Your task to perform on an android device: set an alarm Image 0: 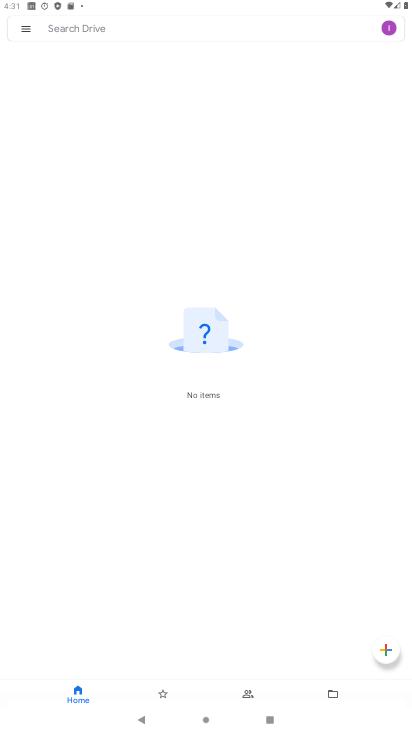
Step 0: press home button
Your task to perform on an android device: set an alarm Image 1: 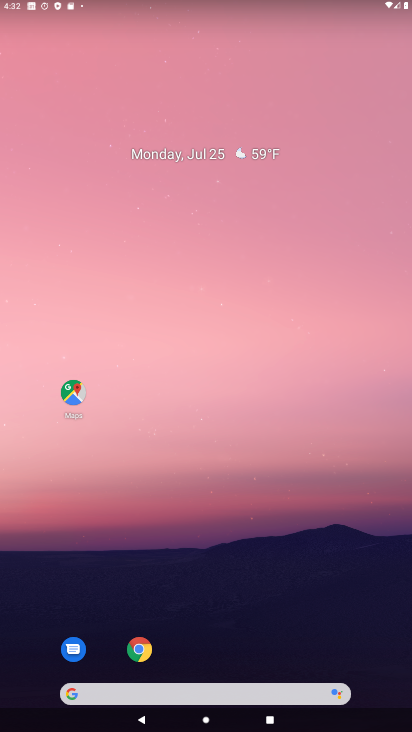
Step 1: drag from (257, 647) to (184, 188)
Your task to perform on an android device: set an alarm Image 2: 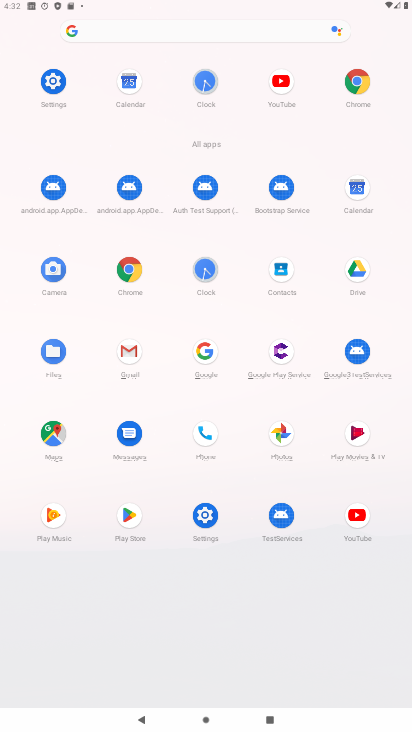
Step 2: click (60, 84)
Your task to perform on an android device: set an alarm Image 3: 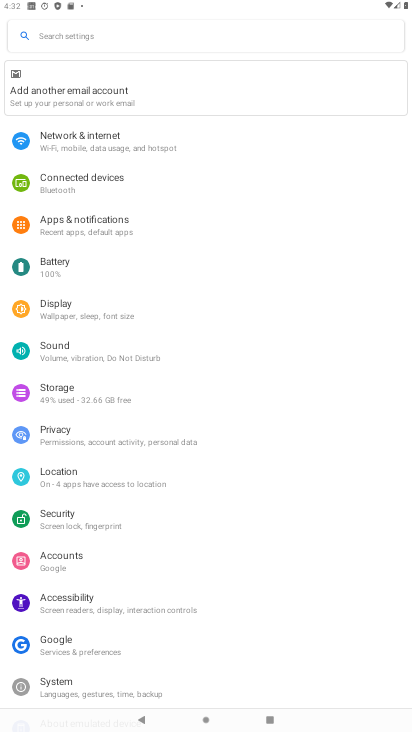
Step 3: press home button
Your task to perform on an android device: set an alarm Image 4: 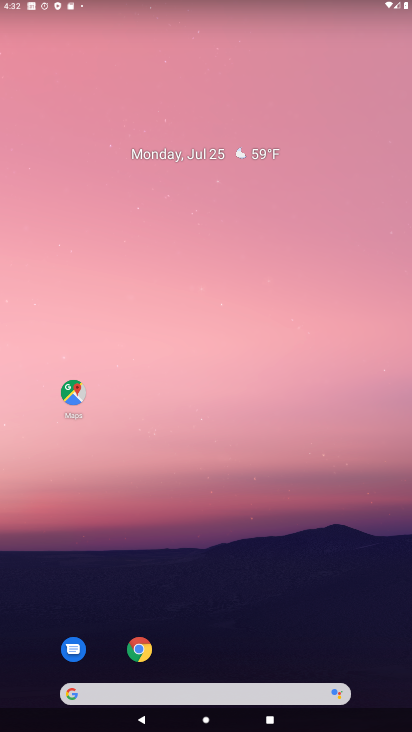
Step 4: drag from (234, 654) to (170, 179)
Your task to perform on an android device: set an alarm Image 5: 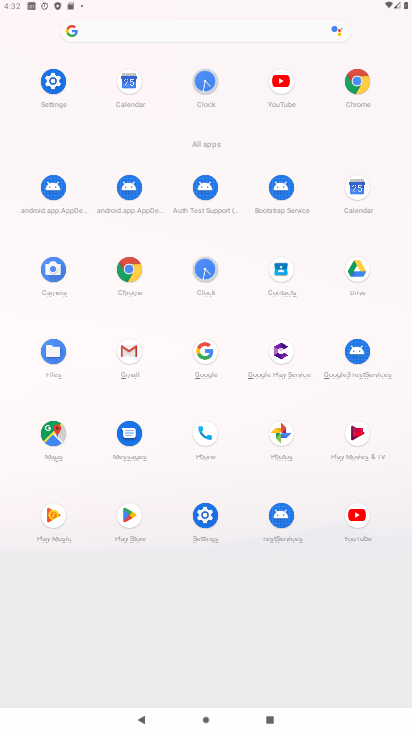
Step 5: click (202, 282)
Your task to perform on an android device: set an alarm Image 6: 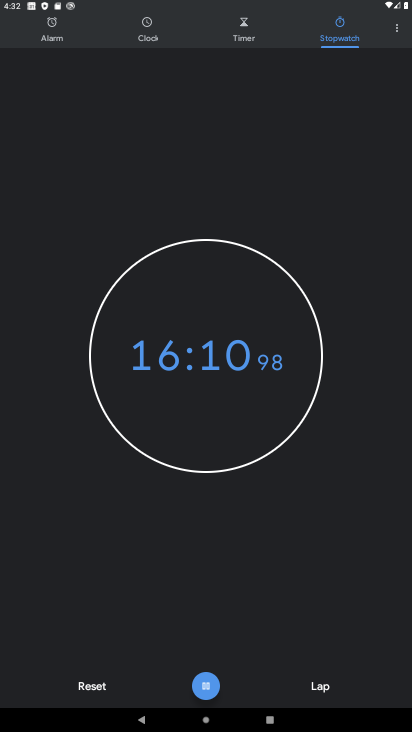
Step 6: click (52, 38)
Your task to perform on an android device: set an alarm Image 7: 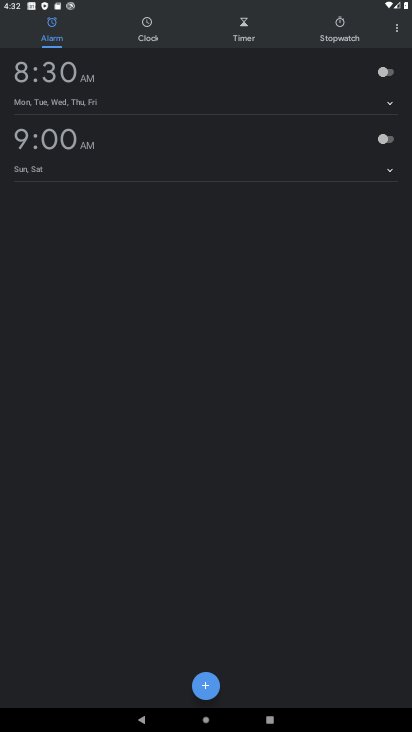
Step 7: click (213, 688)
Your task to perform on an android device: set an alarm Image 8: 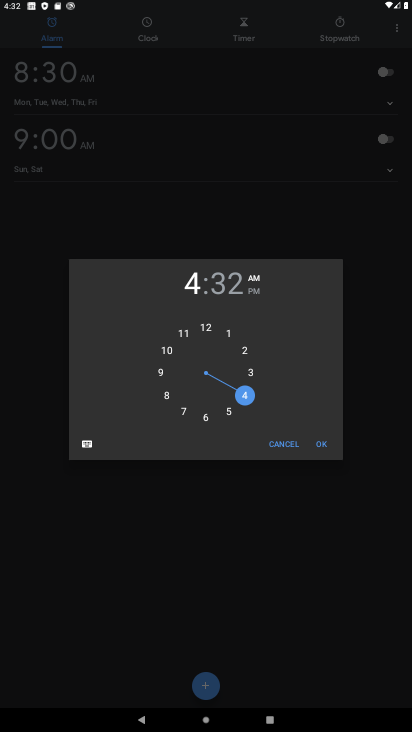
Step 8: click (319, 449)
Your task to perform on an android device: set an alarm Image 9: 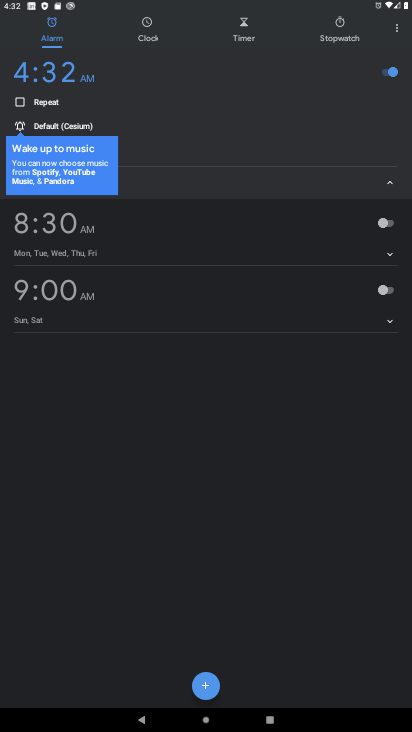
Step 9: task complete